Your task to perform on an android device: turn off priority inbox in the gmail app Image 0: 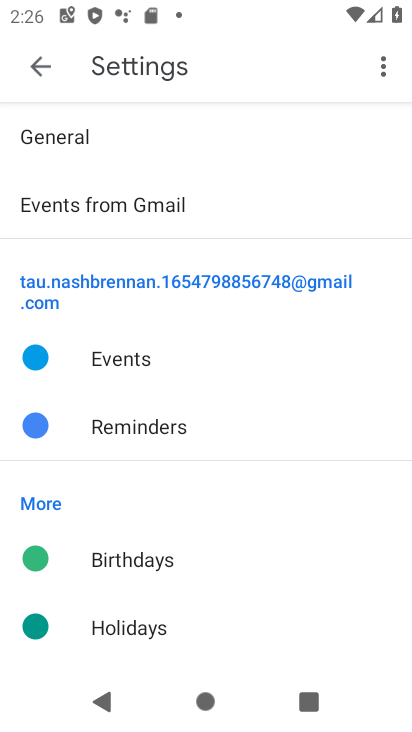
Step 0: press home button
Your task to perform on an android device: turn off priority inbox in the gmail app Image 1: 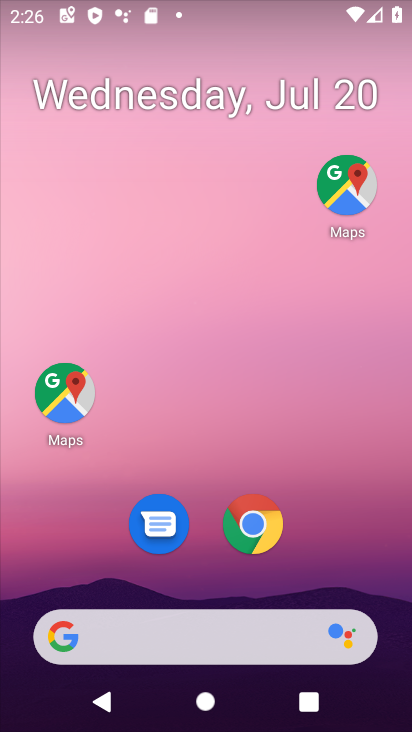
Step 1: drag from (340, 578) to (310, 137)
Your task to perform on an android device: turn off priority inbox in the gmail app Image 2: 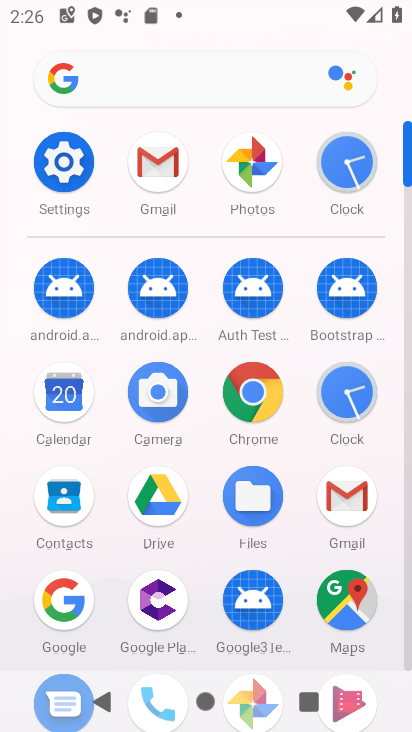
Step 2: click (157, 165)
Your task to perform on an android device: turn off priority inbox in the gmail app Image 3: 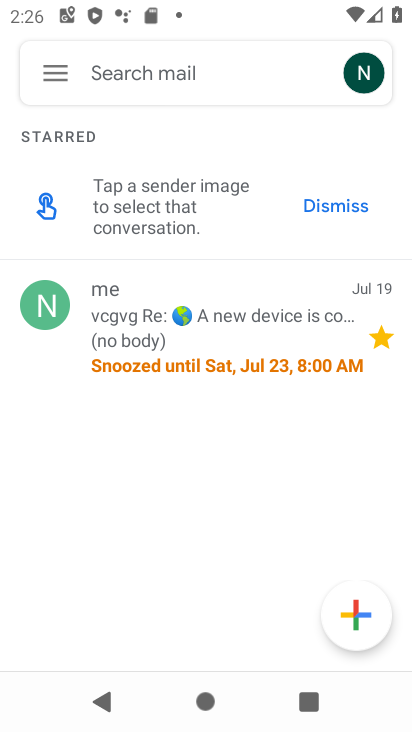
Step 3: click (50, 74)
Your task to perform on an android device: turn off priority inbox in the gmail app Image 4: 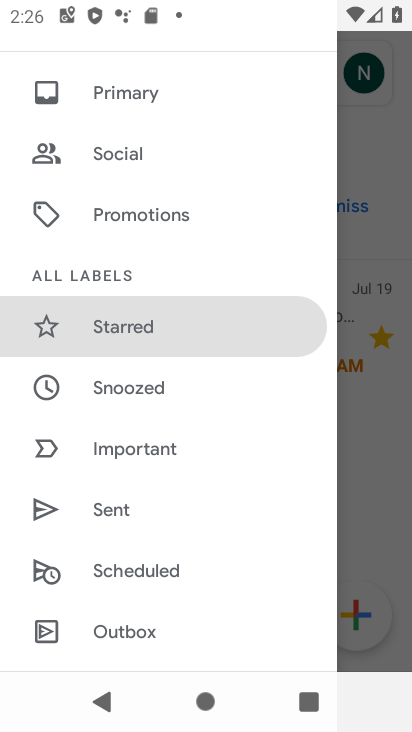
Step 4: drag from (186, 519) to (194, 145)
Your task to perform on an android device: turn off priority inbox in the gmail app Image 5: 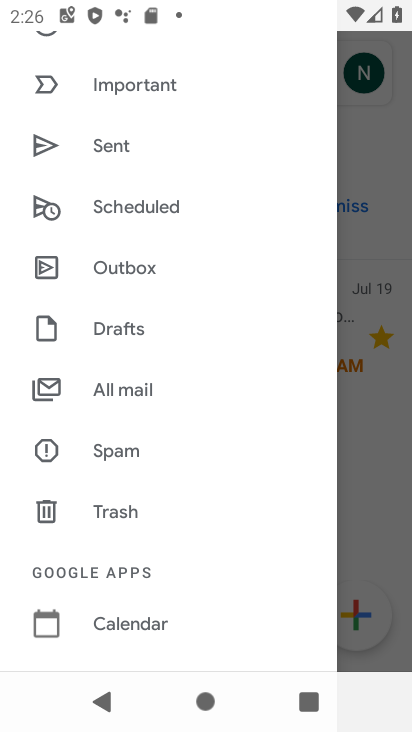
Step 5: drag from (174, 411) to (190, 68)
Your task to perform on an android device: turn off priority inbox in the gmail app Image 6: 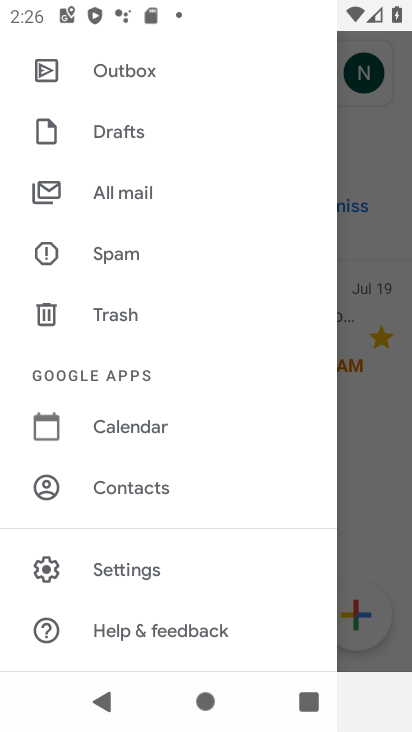
Step 6: click (125, 552)
Your task to perform on an android device: turn off priority inbox in the gmail app Image 7: 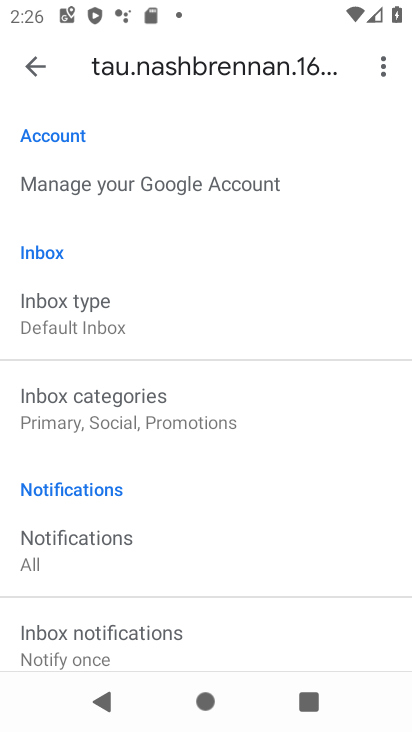
Step 7: click (77, 302)
Your task to perform on an android device: turn off priority inbox in the gmail app Image 8: 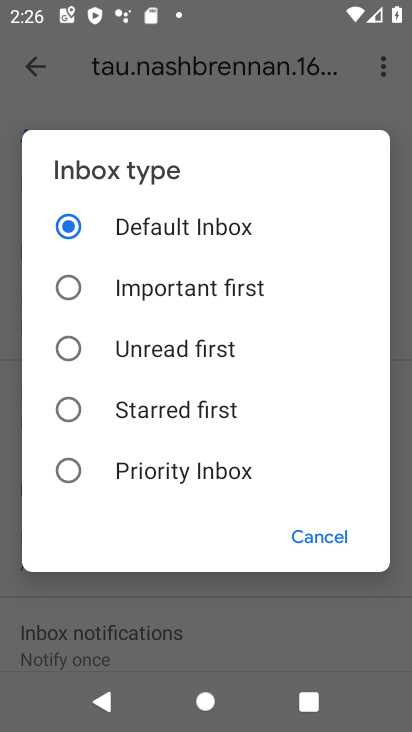
Step 8: click (45, 272)
Your task to perform on an android device: turn off priority inbox in the gmail app Image 9: 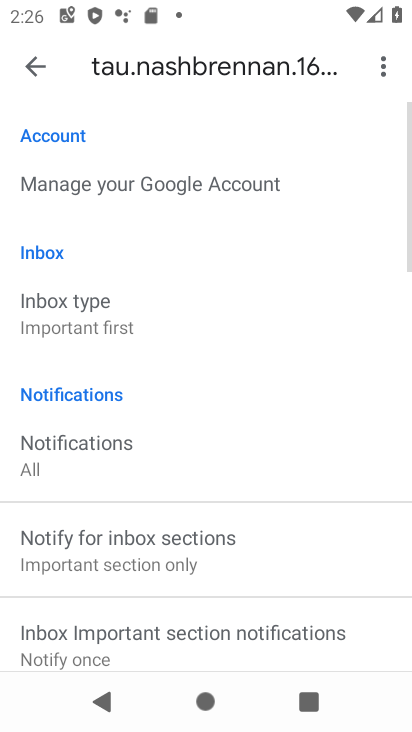
Step 9: task complete